Your task to perform on an android device: Go to notification settings Image 0: 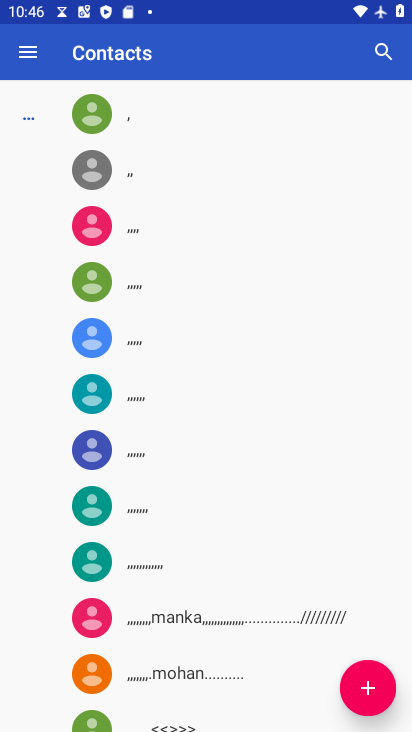
Step 0: press back button
Your task to perform on an android device: Go to notification settings Image 1: 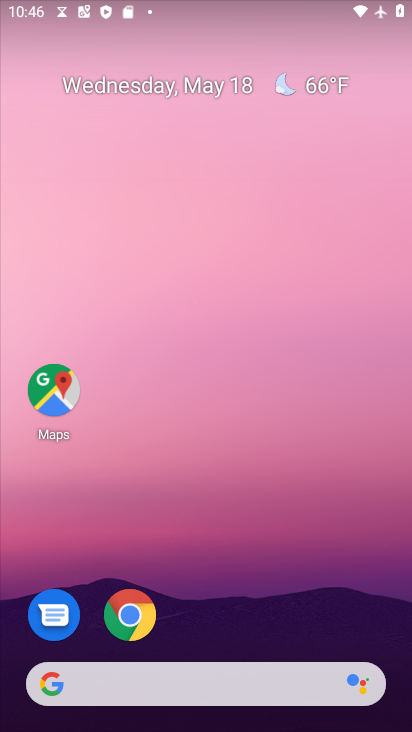
Step 1: drag from (253, 580) to (184, 4)
Your task to perform on an android device: Go to notification settings Image 2: 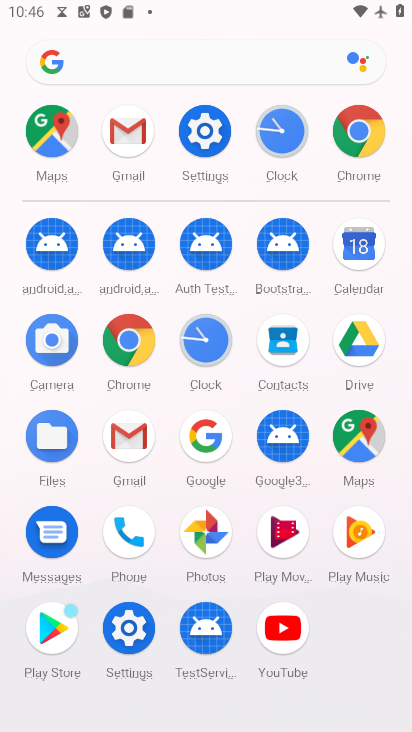
Step 2: click (204, 129)
Your task to perform on an android device: Go to notification settings Image 3: 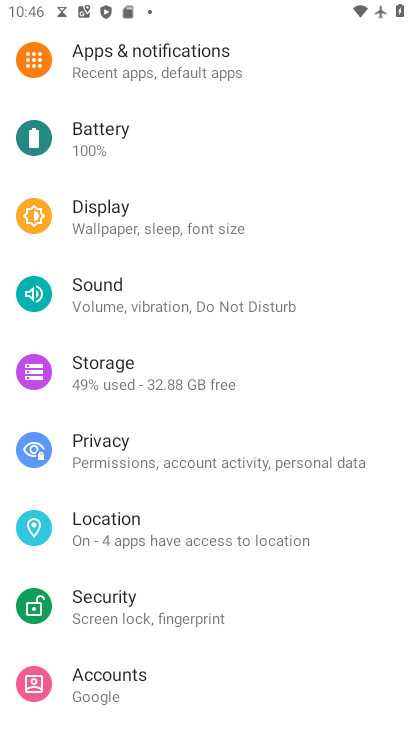
Step 3: drag from (206, 170) to (203, 550)
Your task to perform on an android device: Go to notification settings Image 4: 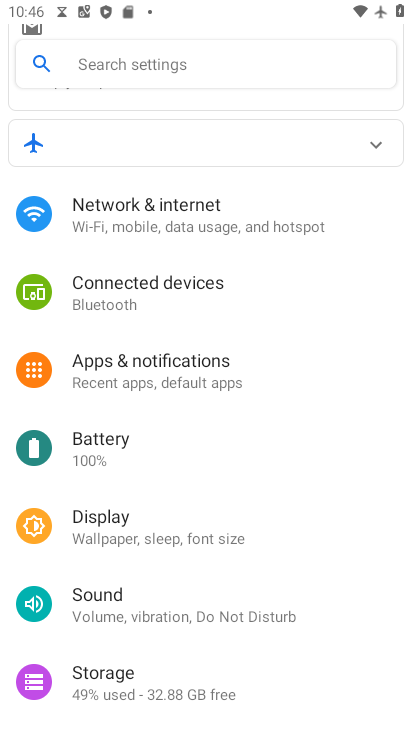
Step 4: click (205, 364)
Your task to perform on an android device: Go to notification settings Image 5: 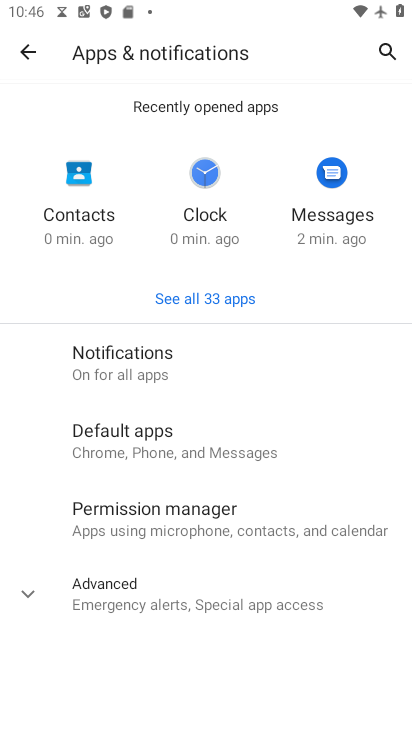
Step 5: click (27, 586)
Your task to perform on an android device: Go to notification settings Image 6: 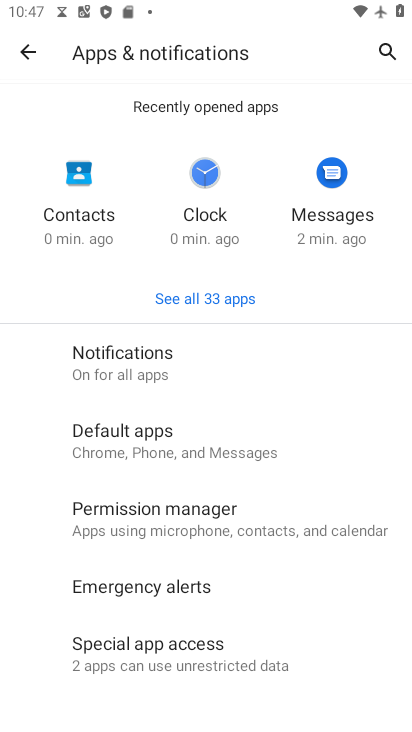
Step 6: task complete